Your task to perform on an android device: Open the phone app and click the voicemail tab. Image 0: 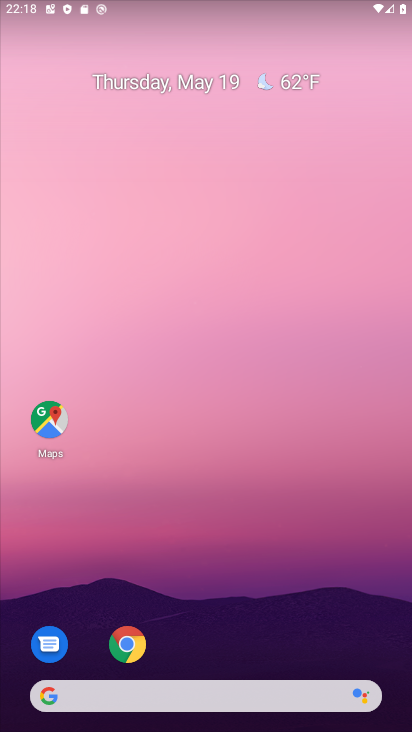
Step 0: click (87, 122)
Your task to perform on an android device: Open the phone app and click the voicemail tab. Image 1: 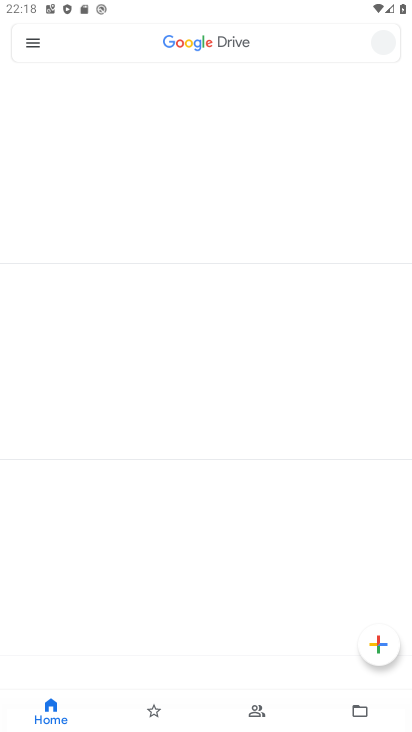
Step 1: press back button
Your task to perform on an android device: Open the phone app and click the voicemail tab. Image 2: 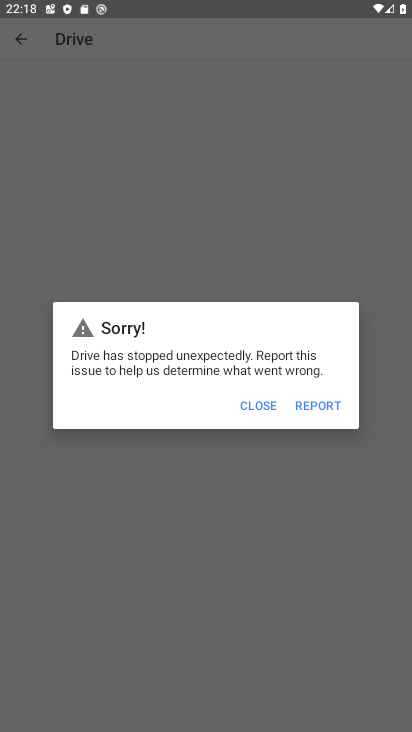
Step 2: click (251, 420)
Your task to perform on an android device: Open the phone app and click the voicemail tab. Image 3: 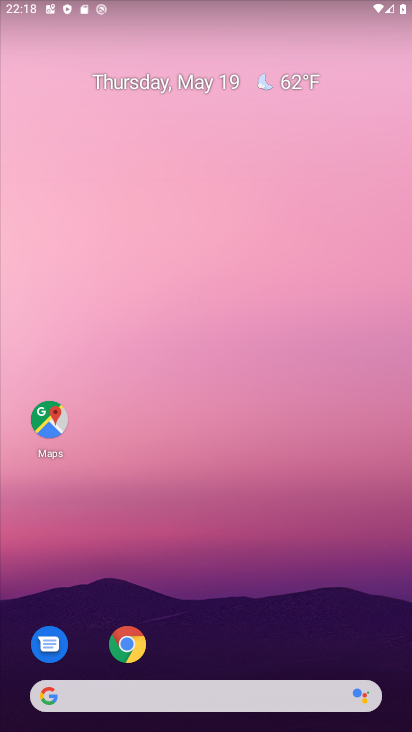
Step 3: drag from (296, 620) to (192, 48)
Your task to perform on an android device: Open the phone app and click the voicemail tab. Image 4: 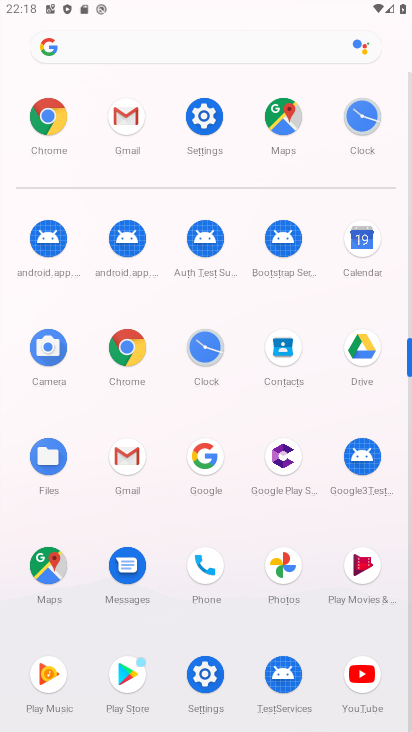
Step 4: click (195, 565)
Your task to perform on an android device: Open the phone app and click the voicemail tab. Image 5: 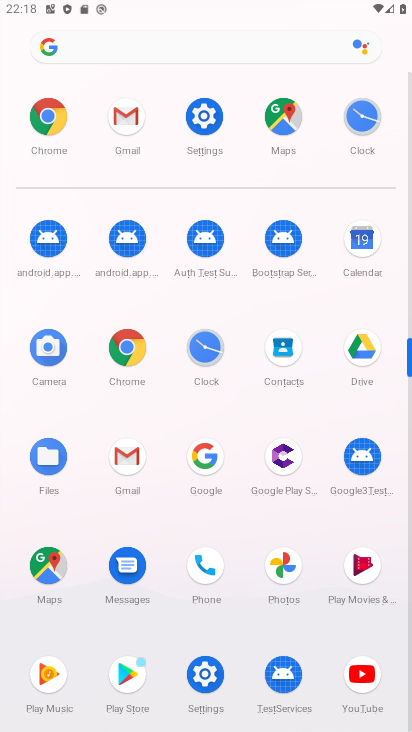
Step 5: click (197, 564)
Your task to perform on an android device: Open the phone app and click the voicemail tab. Image 6: 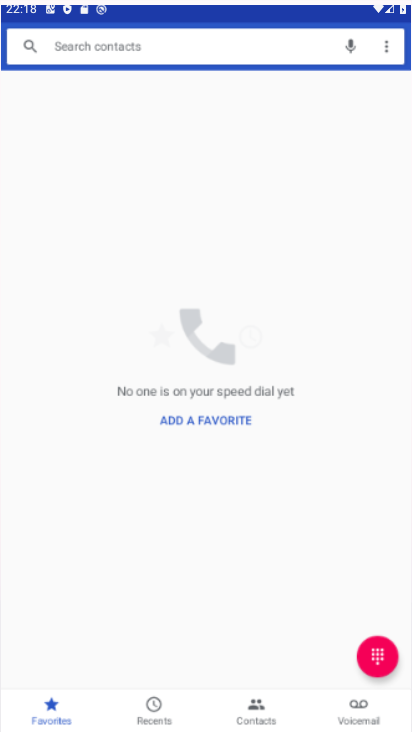
Step 6: click (197, 564)
Your task to perform on an android device: Open the phone app and click the voicemail tab. Image 7: 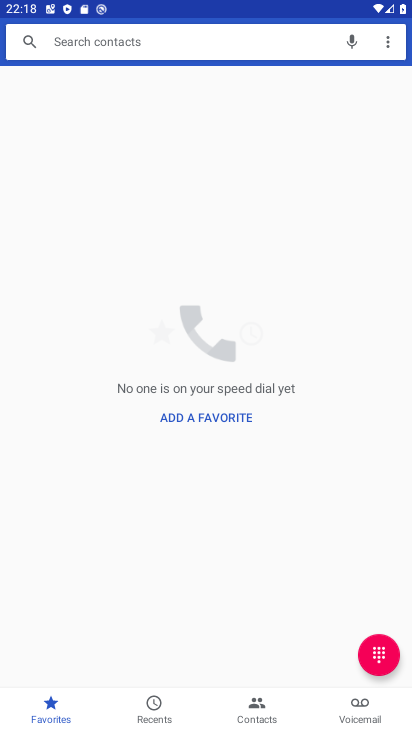
Step 7: click (196, 564)
Your task to perform on an android device: Open the phone app and click the voicemail tab. Image 8: 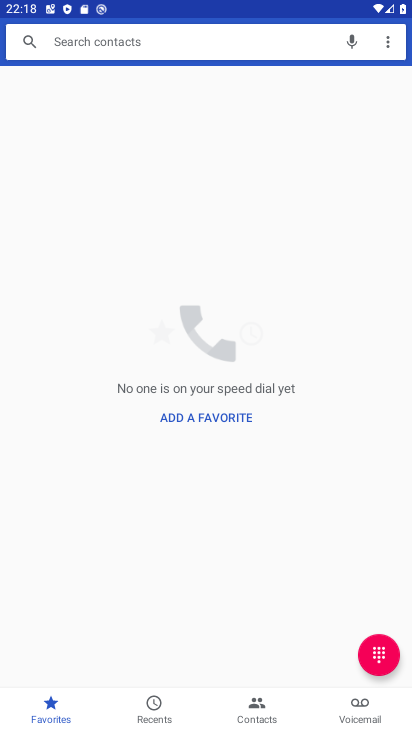
Step 8: click (361, 706)
Your task to perform on an android device: Open the phone app and click the voicemail tab. Image 9: 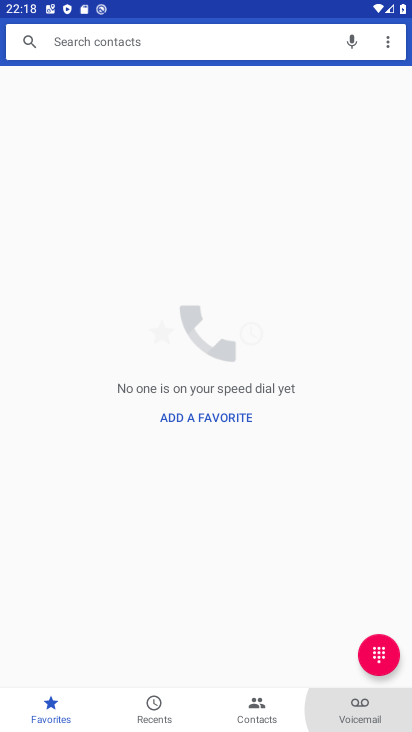
Step 9: click (361, 706)
Your task to perform on an android device: Open the phone app and click the voicemail tab. Image 10: 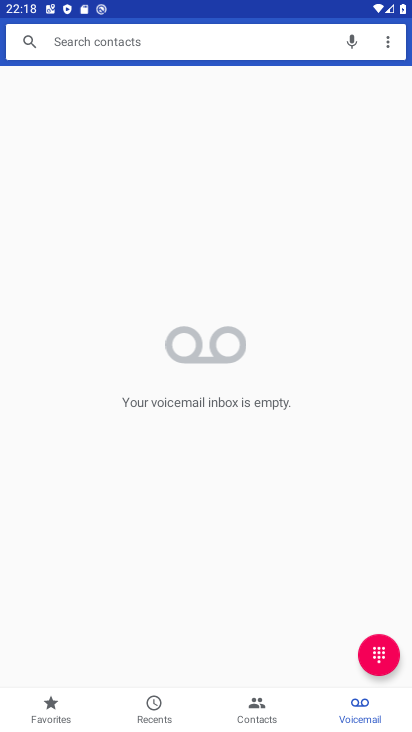
Step 10: task complete